Your task to perform on an android device: turn on priority inbox in the gmail app Image 0: 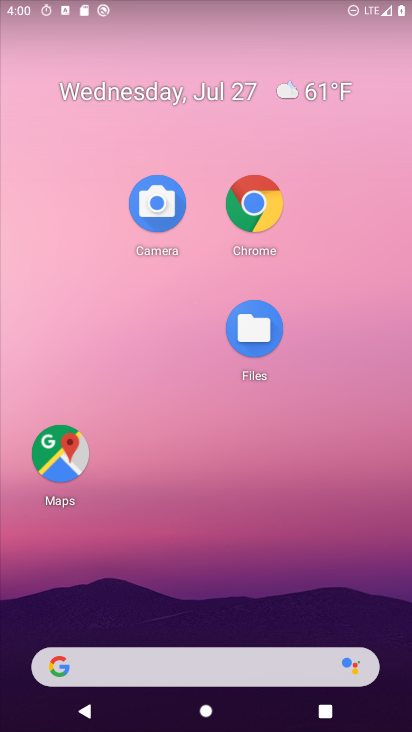
Step 0: drag from (203, 624) to (338, 0)
Your task to perform on an android device: turn on priority inbox in the gmail app Image 1: 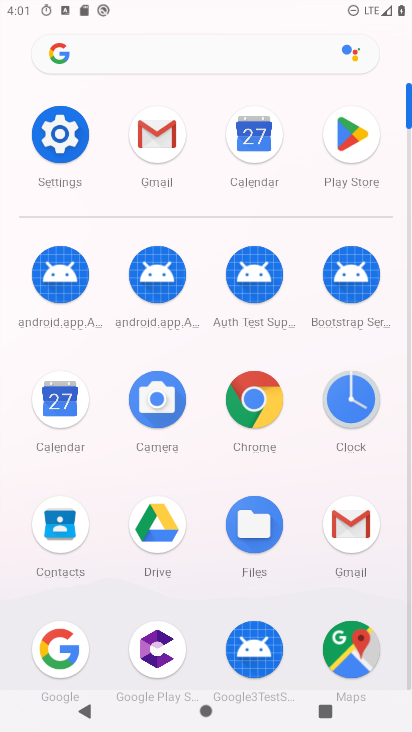
Step 1: click (178, 147)
Your task to perform on an android device: turn on priority inbox in the gmail app Image 2: 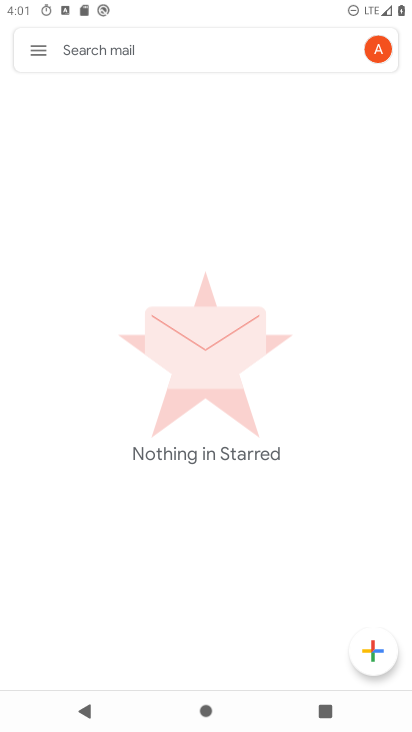
Step 2: click (53, 54)
Your task to perform on an android device: turn on priority inbox in the gmail app Image 3: 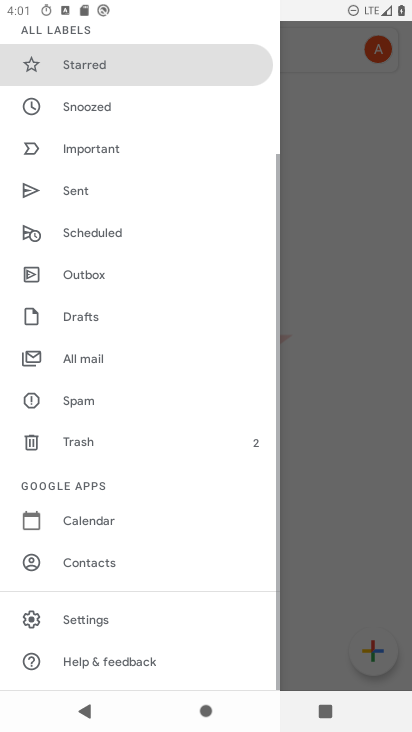
Step 3: click (124, 619)
Your task to perform on an android device: turn on priority inbox in the gmail app Image 4: 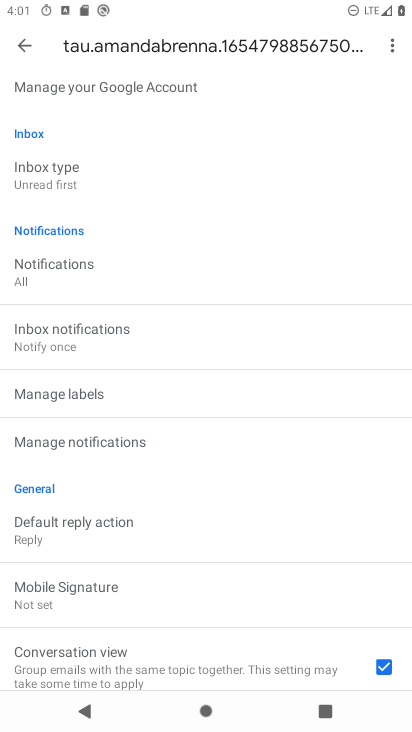
Step 4: click (110, 339)
Your task to perform on an android device: turn on priority inbox in the gmail app Image 5: 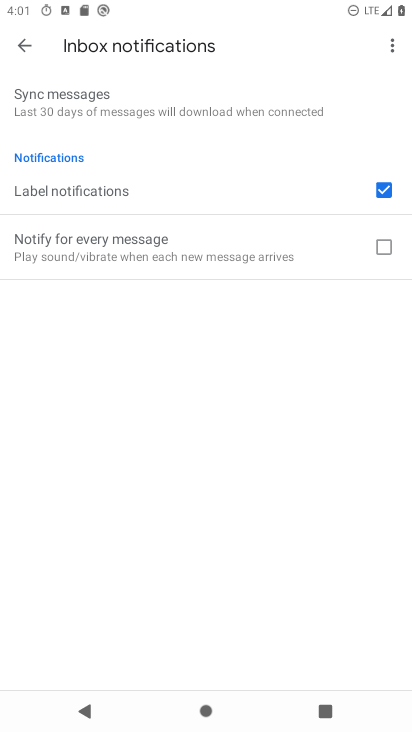
Step 5: click (9, 41)
Your task to perform on an android device: turn on priority inbox in the gmail app Image 6: 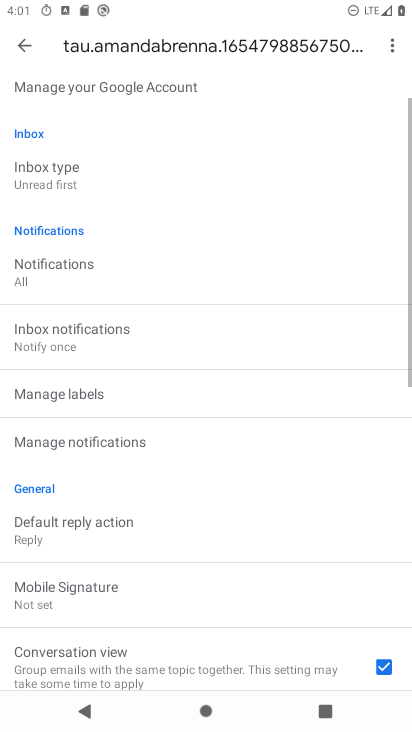
Step 6: drag from (112, 220) to (54, 226)
Your task to perform on an android device: turn on priority inbox in the gmail app Image 7: 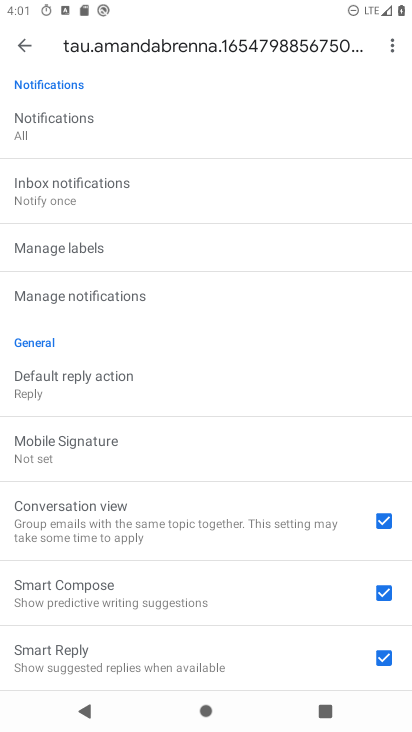
Step 7: drag from (121, 174) to (139, 540)
Your task to perform on an android device: turn on priority inbox in the gmail app Image 8: 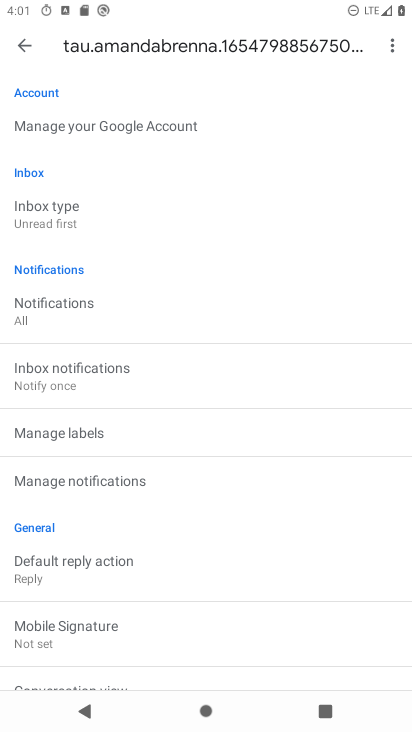
Step 8: click (139, 387)
Your task to perform on an android device: turn on priority inbox in the gmail app Image 9: 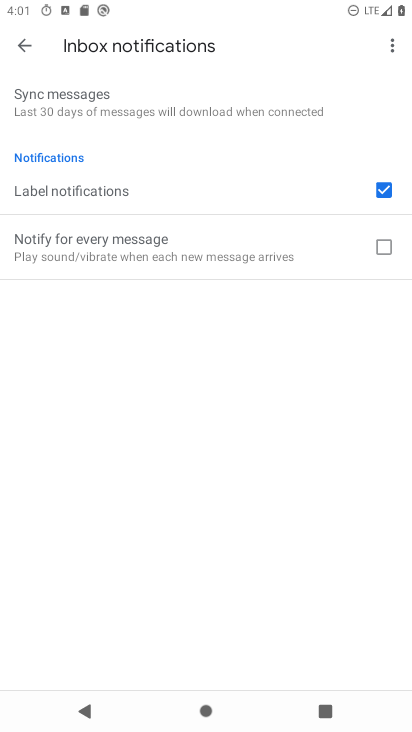
Step 9: click (16, 38)
Your task to perform on an android device: turn on priority inbox in the gmail app Image 10: 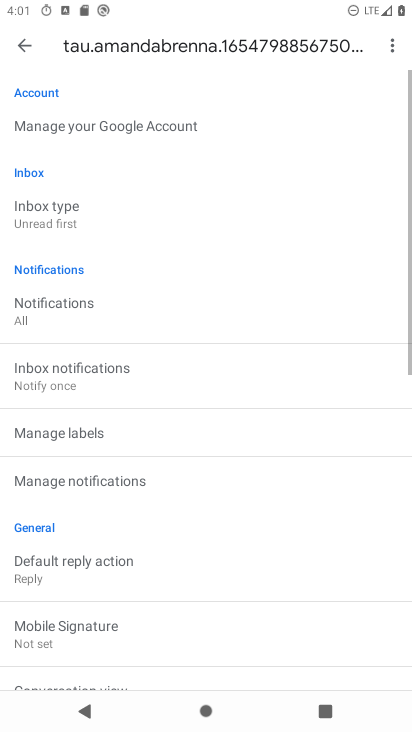
Step 10: drag from (125, 167) to (159, 496)
Your task to perform on an android device: turn on priority inbox in the gmail app Image 11: 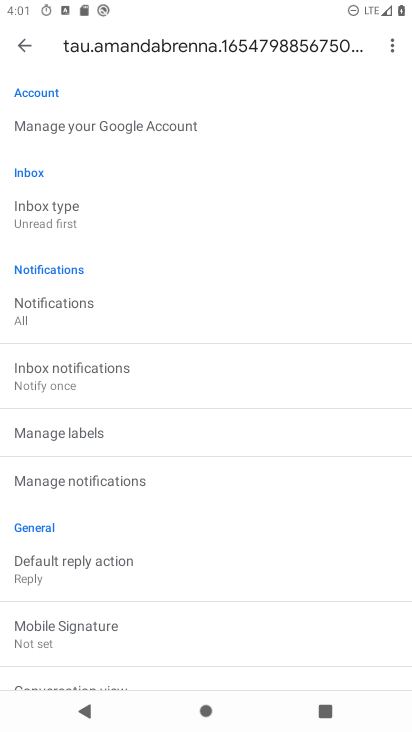
Step 11: click (129, 381)
Your task to perform on an android device: turn on priority inbox in the gmail app Image 12: 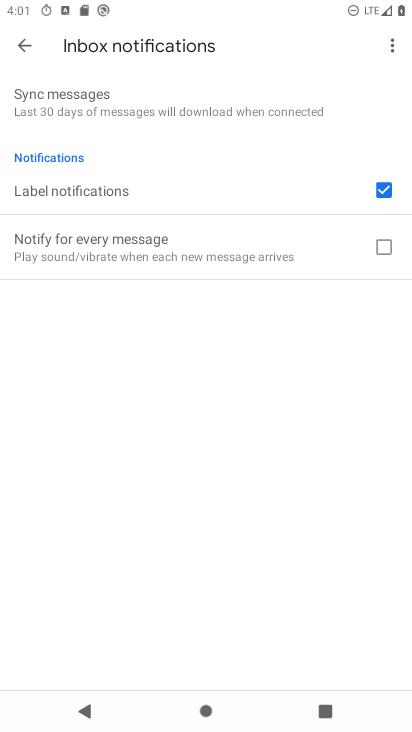
Step 12: click (13, 49)
Your task to perform on an android device: turn on priority inbox in the gmail app Image 13: 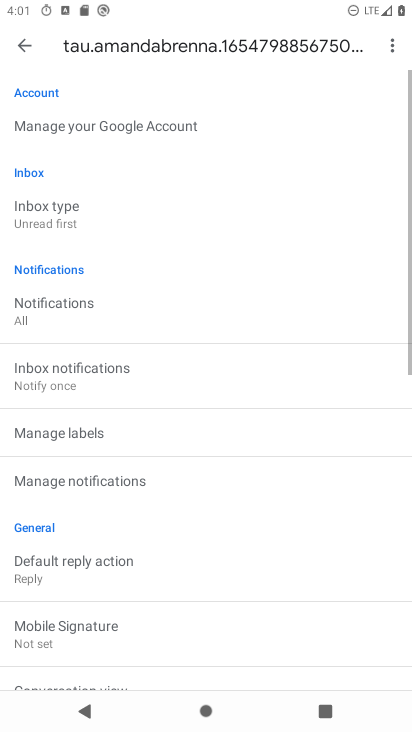
Step 13: drag from (141, 141) to (153, 529)
Your task to perform on an android device: turn on priority inbox in the gmail app Image 14: 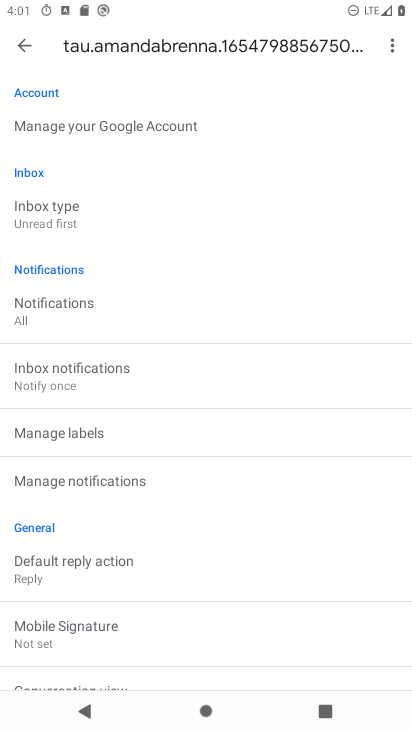
Step 14: drag from (143, 246) to (156, 307)
Your task to perform on an android device: turn on priority inbox in the gmail app Image 15: 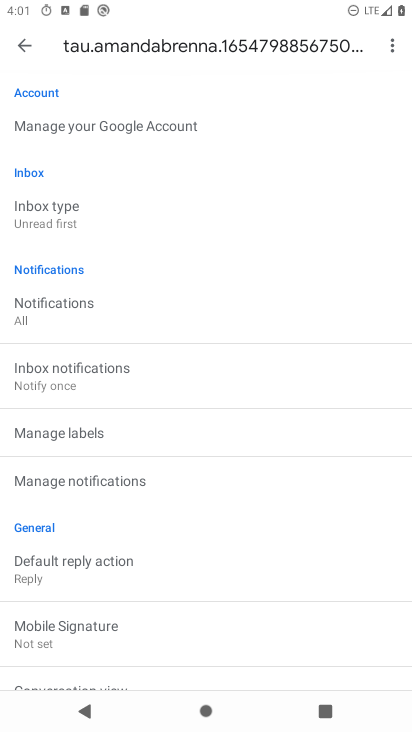
Step 15: drag from (103, 678) to (112, 349)
Your task to perform on an android device: turn on priority inbox in the gmail app Image 16: 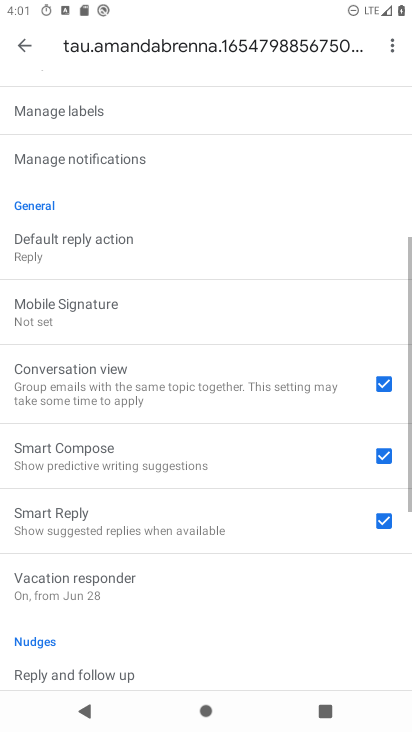
Step 16: drag from (142, 224) to (166, 560)
Your task to perform on an android device: turn on priority inbox in the gmail app Image 17: 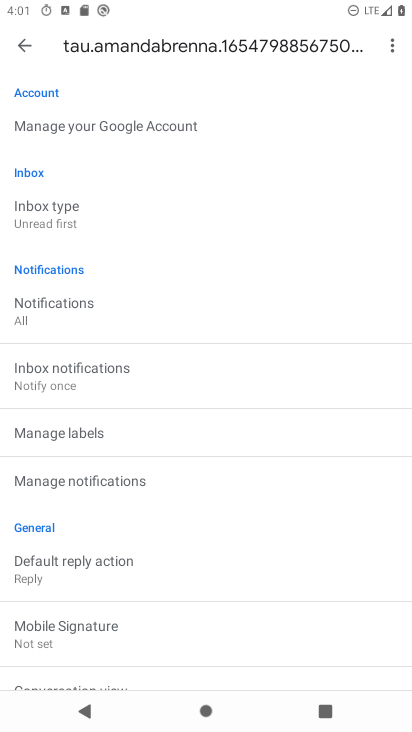
Step 17: click (106, 217)
Your task to perform on an android device: turn on priority inbox in the gmail app Image 18: 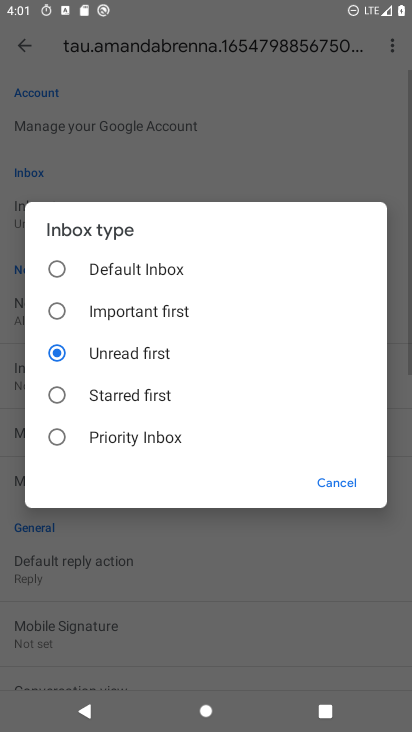
Step 18: click (147, 420)
Your task to perform on an android device: turn on priority inbox in the gmail app Image 19: 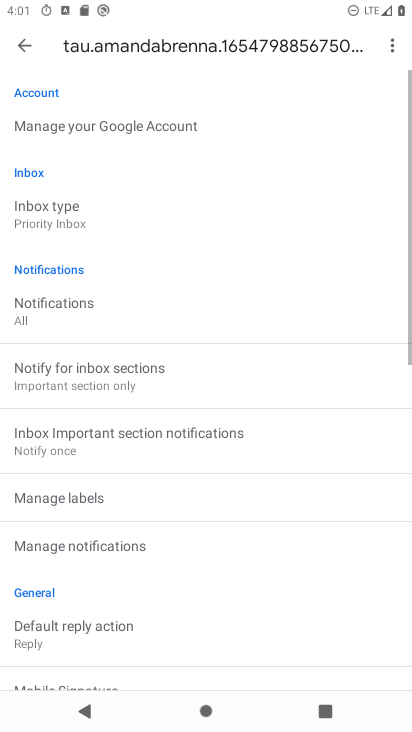
Step 19: task complete